Your task to perform on an android device: turn on bluetooth scan Image 0: 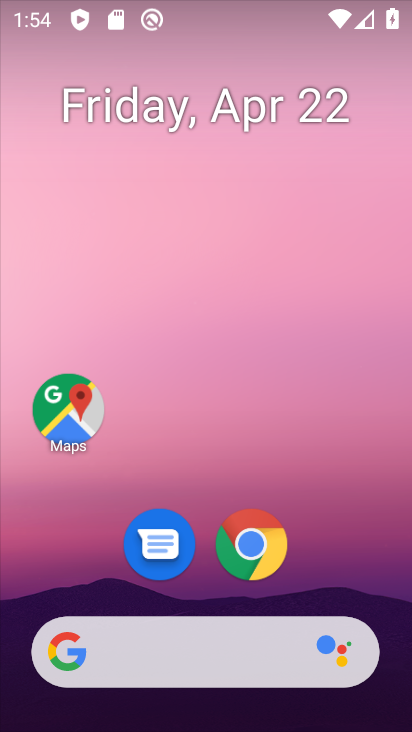
Step 0: drag from (205, 503) to (195, 424)
Your task to perform on an android device: turn on bluetooth scan Image 1: 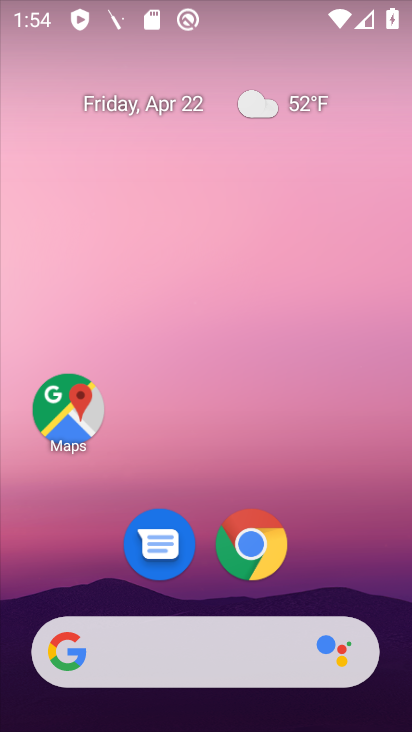
Step 1: drag from (197, 465) to (214, 40)
Your task to perform on an android device: turn on bluetooth scan Image 2: 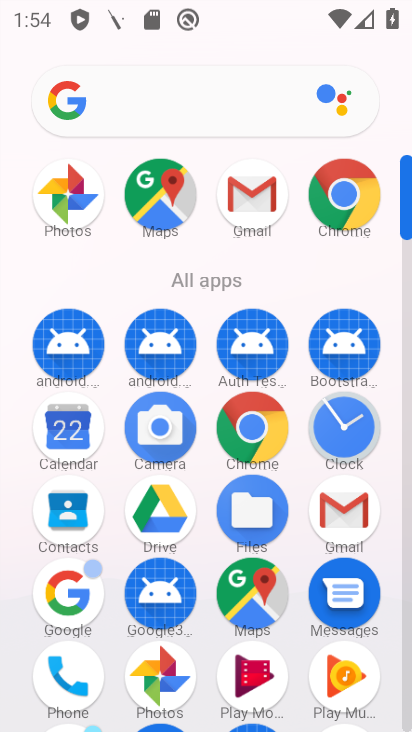
Step 2: drag from (220, 643) to (229, 151)
Your task to perform on an android device: turn on bluetooth scan Image 3: 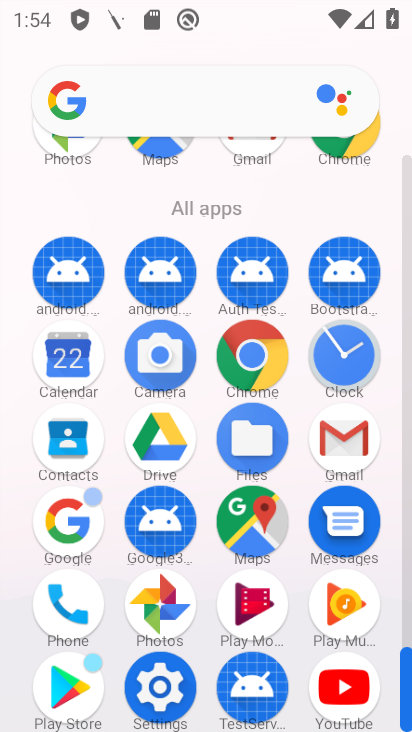
Step 3: click (164, 693)
Your task to perform on an android device: turn on bluetooth scan Image 4: 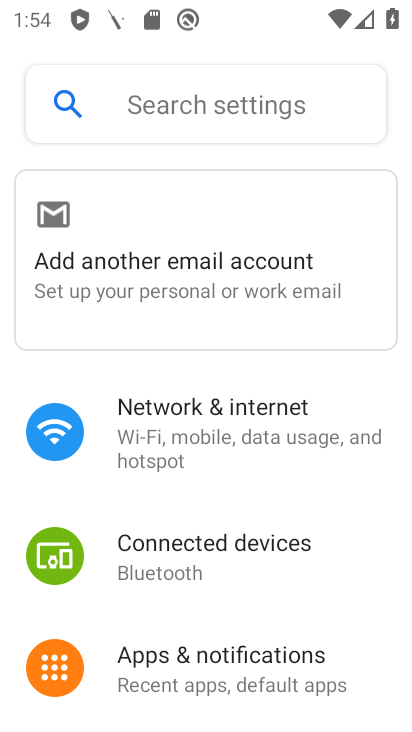
Step 4: drag from (139, 614) to (254, 149)
Your task to perform on an android device: turn on bluetooth scan Image 5: 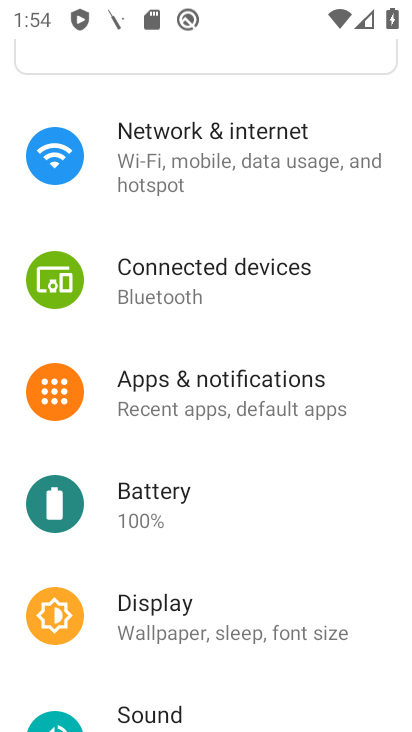
Step 5: drag from (163, 592) to (225, 37)
Your task to perform on an android device: turn on bluetooth scan Image 6: 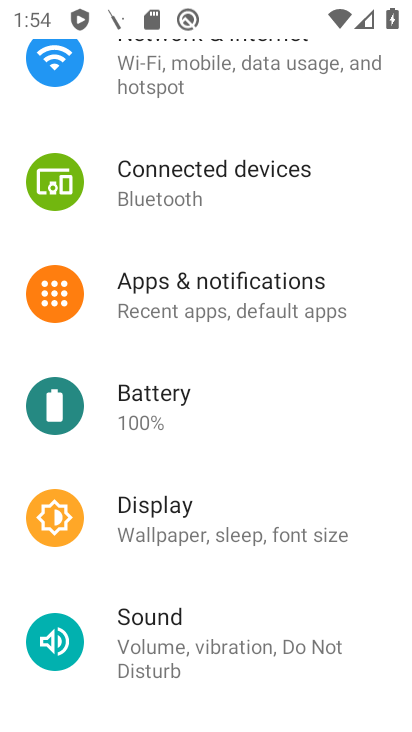
Step 6: drag from (104, 643) to (143, 218)
Your task to perform on an android device: turn on bluetooth scan Image 7: 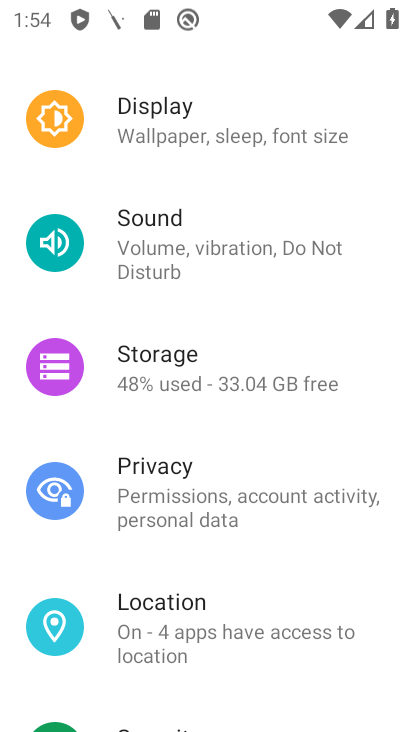
Step 7: click (218, 657)
Your task to perform on an android device: turn on bluetooth scan Image 8: 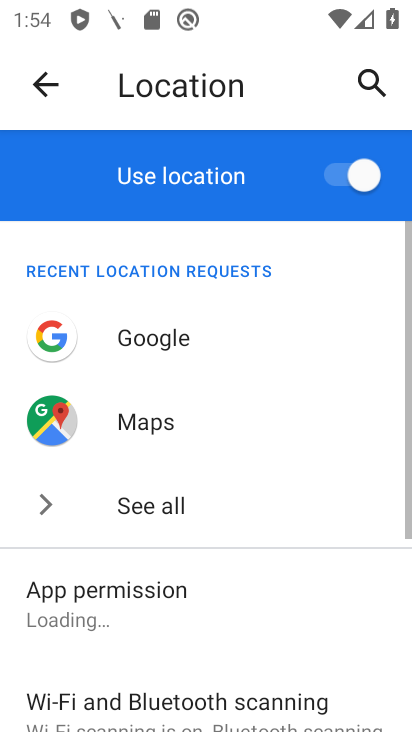
Step 8: drag from (218, 657) to (245, 275)
Your task to perform on an android device: turn on bluetooth scan Image 9: 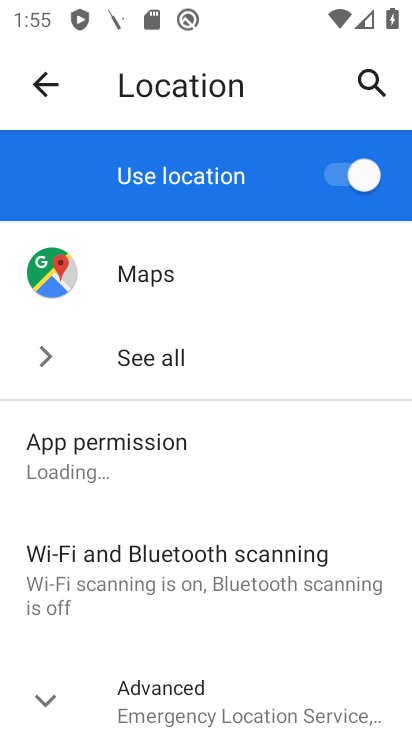
Step 9: click (124, 548)
Your task to perform on an android device: turn on bluetooth scan Image 10: 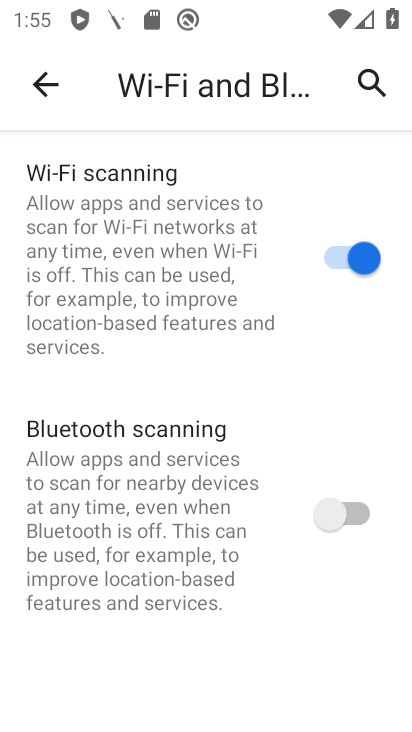
Step 10: click (362, 514)
Your task to perform on an android device: turn on bluetooth scan Image 11: 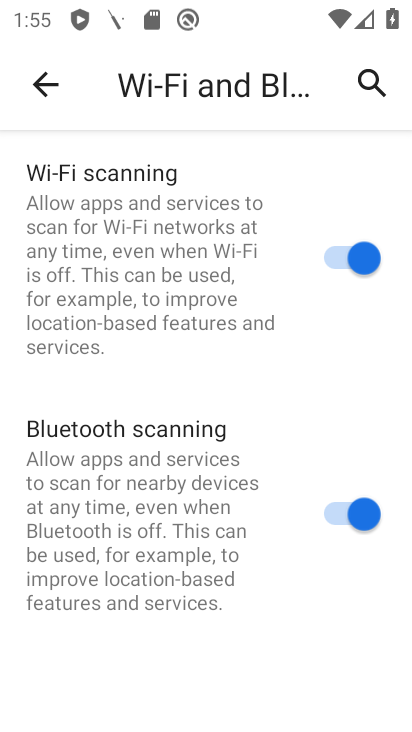
Step 11: task complete